Your task to perform on an android device: toggle sleep mode Image 0: 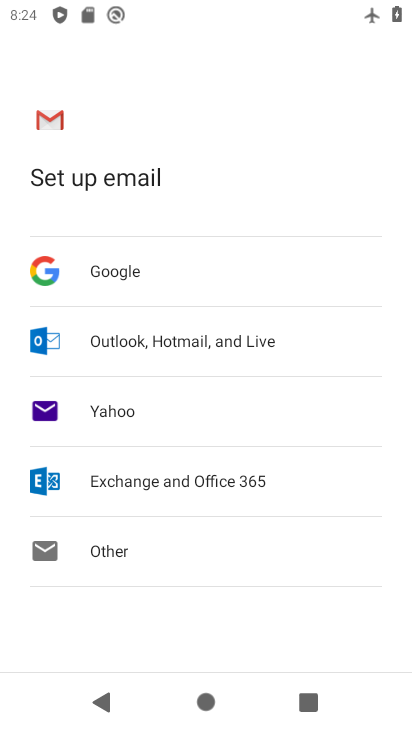
Step 0: press home button
Your task to perform on an android device: toggle sleep mode Image 1: 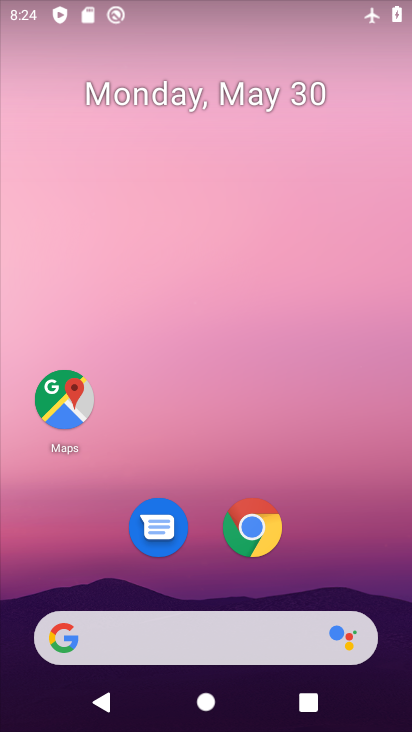
Step 1: drag from (310, 580) to (327, 93)
Your task to perform on an android device: toggle sleep mode Image 2: 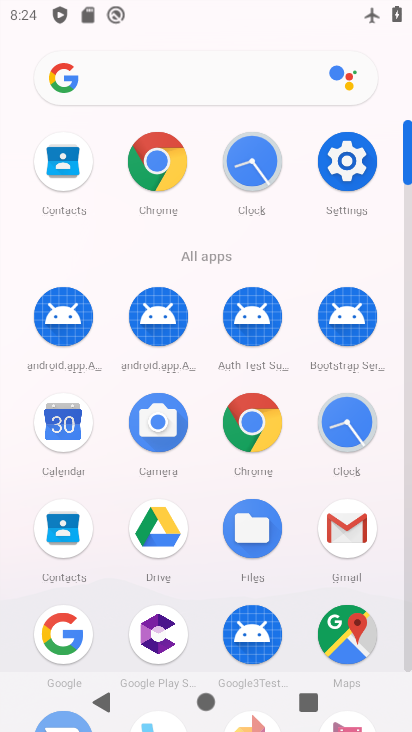
Step 2: click (335, 157)
Your task to perform on an android device: toggle sleep mode Image 3: 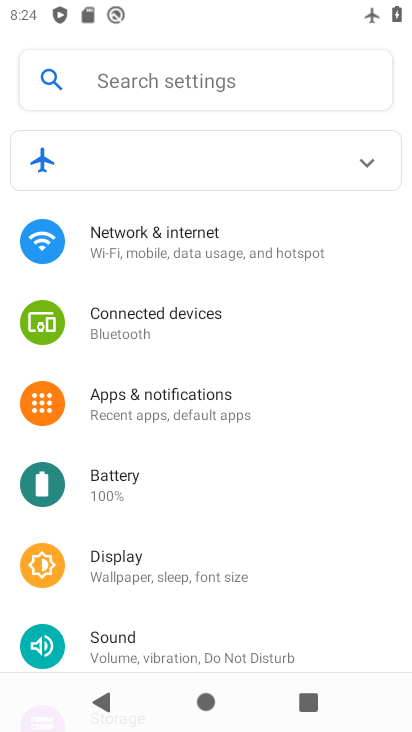
Step 3: drag from (204, 622) to (278, 296)
Your task to perform on an android device: toggle sleep mode Image 4: 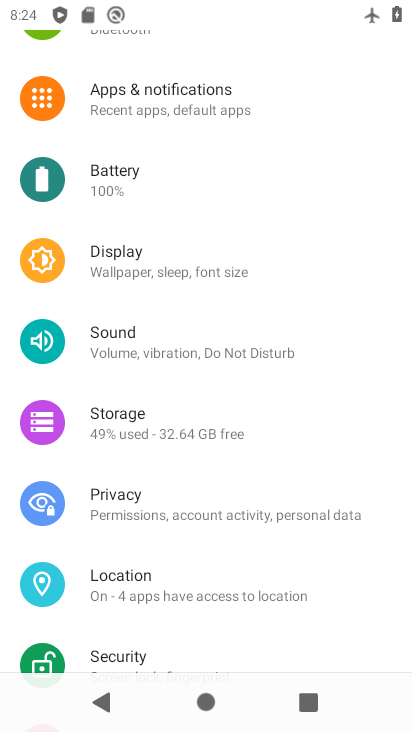
Step 4: click (218, 260)
Your task to perform on an android device: toggle sleep mode Image 5: 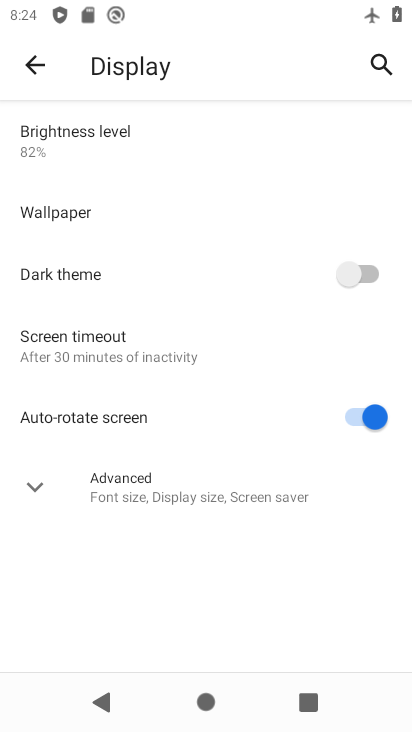
Step 5: click (167, 477)
Your task to perform on an android device: toggle sleep mode Image 6: 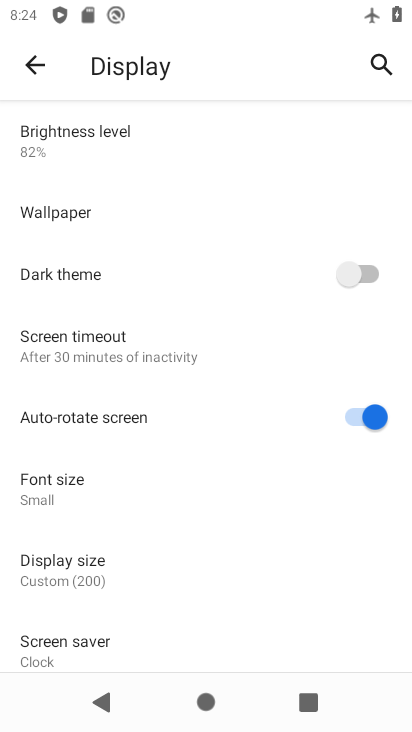
Step 6: drag from (73, 582) to (111, 133)
Your task to perform on an android device: toggle sleep mode Image 7: 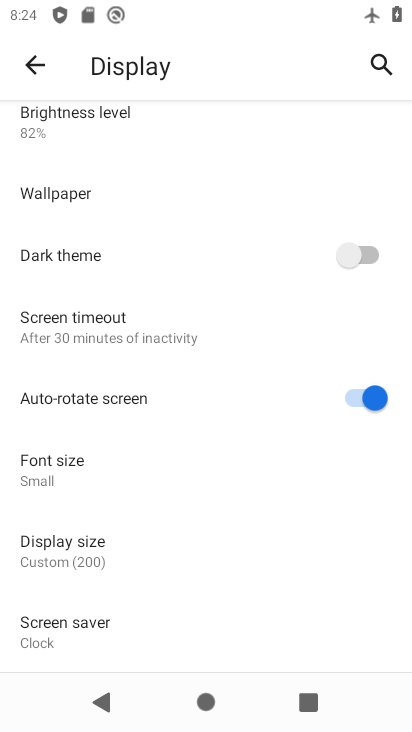
Step 7: click (44, 77)
Your task to perform on an android device: toggle sleep mode Image 8: 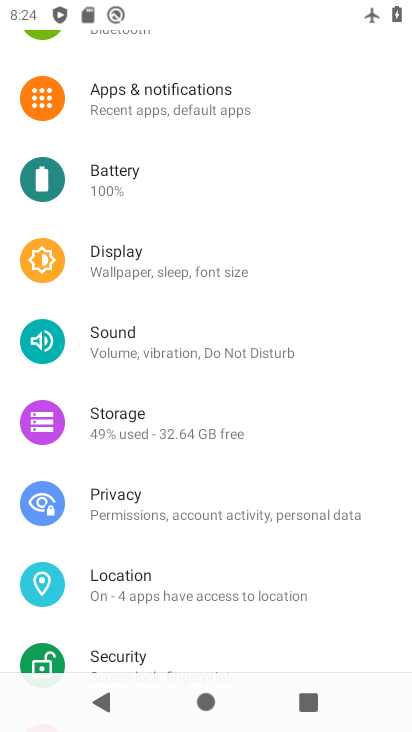
Step 8: task complete